Your task to perform on an android device: What's on my calendar today? Image 0: 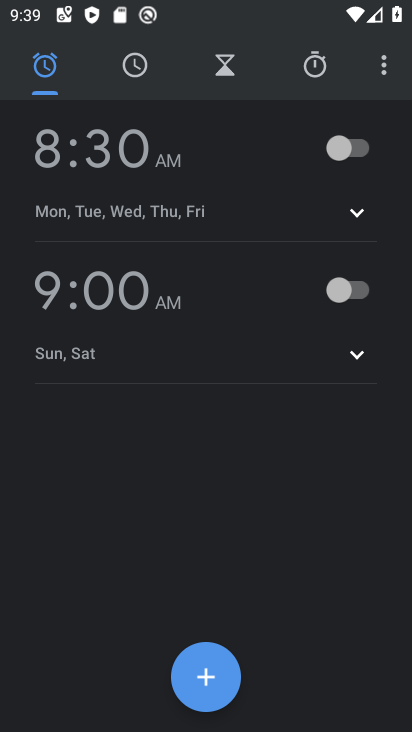
Step 0: press home button
Your task to perform on an android device: What's on my calendar today? Image 1: 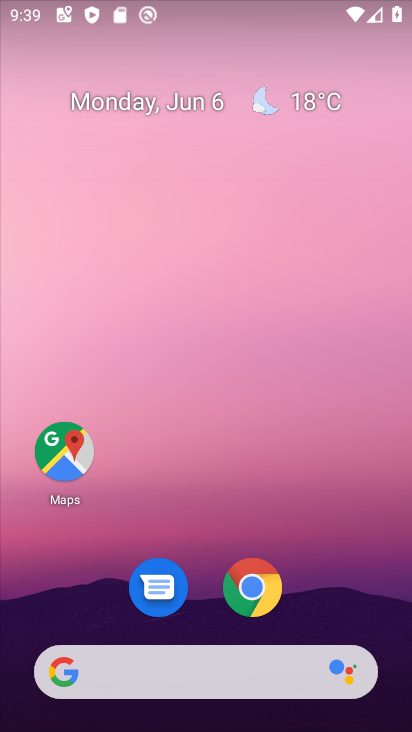
Step 1: drag from (345, 579) to (351, 254)
Your task to perform on an android device: What's on my calendar today? Image 2: 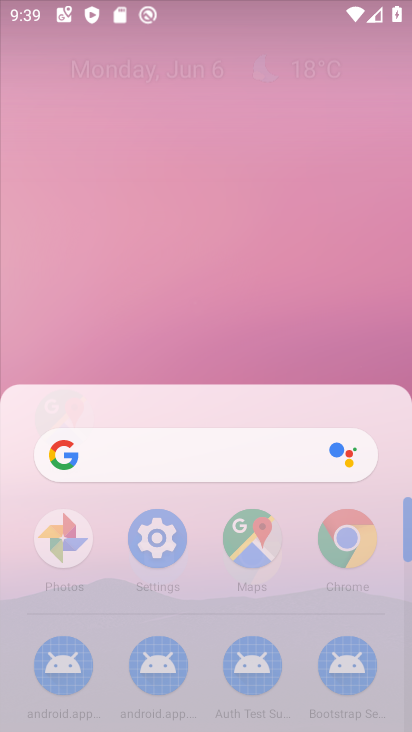
Step 2: click (354, 149)
Your task to perform on an android device: What's on my calendar today? Image 3: 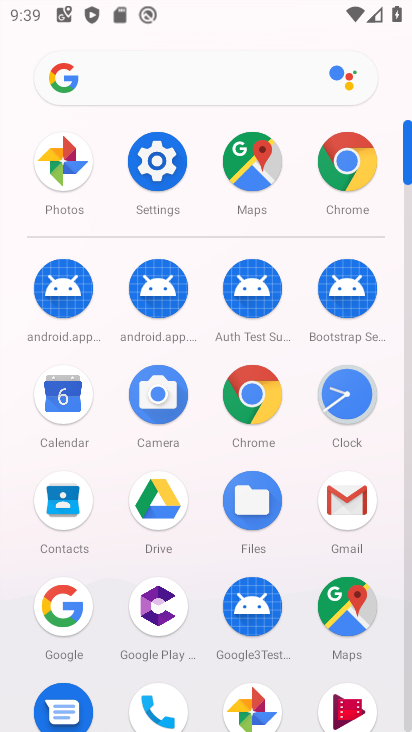
Step 3: click (63, 391)
Your task to perform on an android device: What's on my calendar today? Image 4: 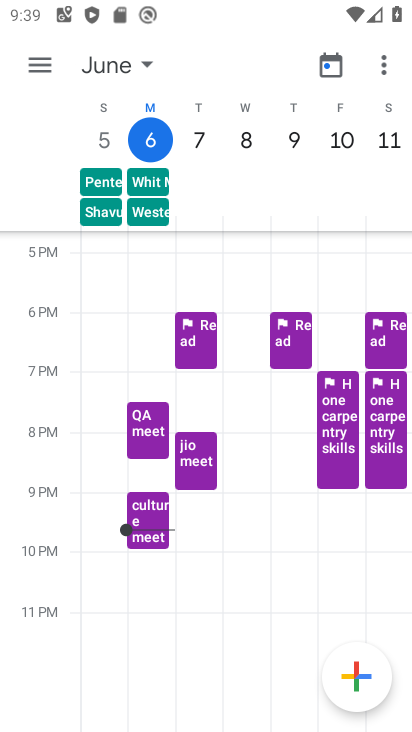
Step 4: click (135, 128)
Your task to perform on an android device: What's on my calendar today? Image 5: 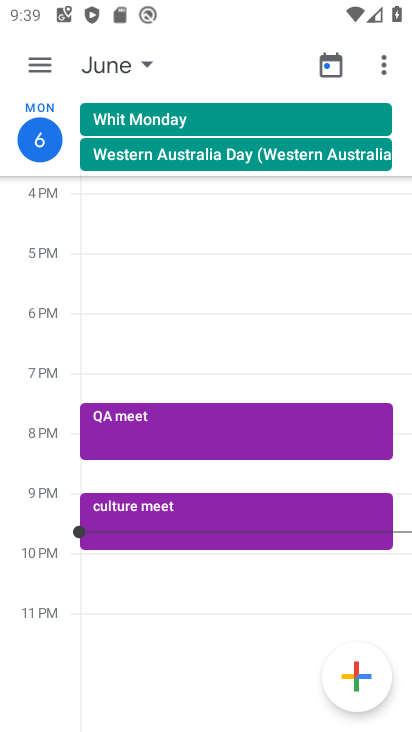
Step 5: task complete